Your task to perform on an android device: Go to CNN.com Image 0: 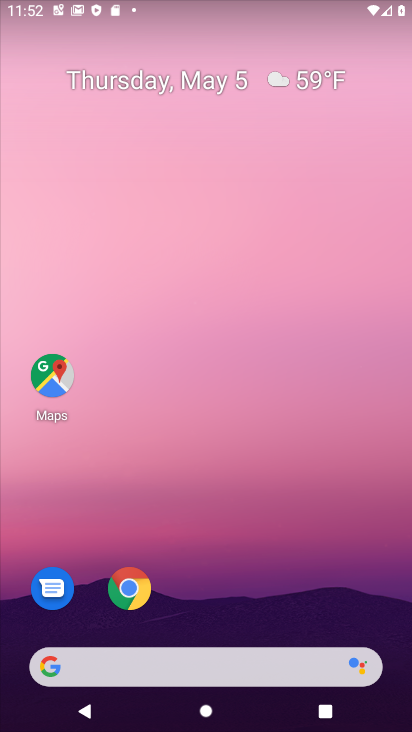
Step 0: drag from (233, 647) to (358, 78)
Your task to perform on an android device: Go to CNN.com Image 1: 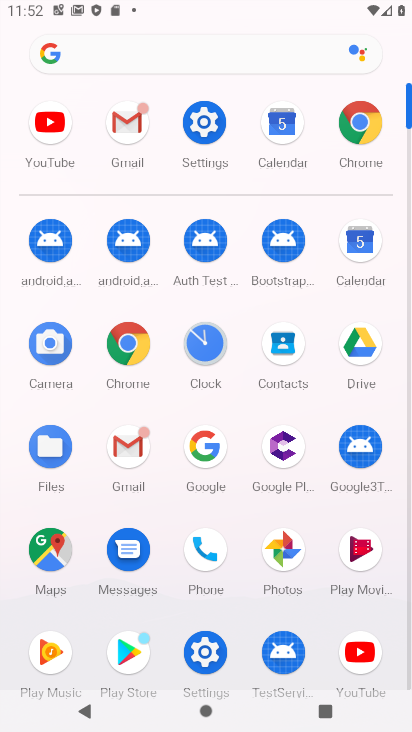
Step 1: click (345, 120)
Your task to perform on an android device: Go to CNN.com Image 2: 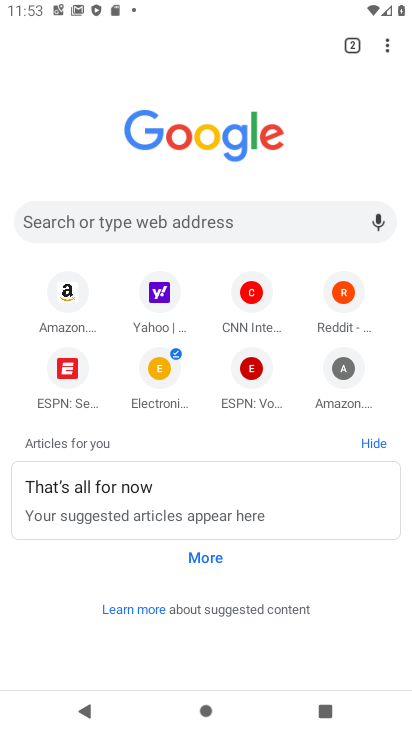
Step 2: click (252, 304)
Your task to perform on an android device: Go to CNN.com Image 3: 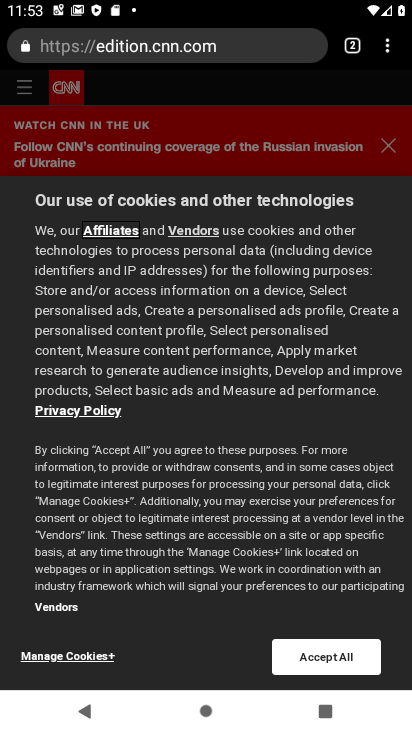
Step 3: task complete